Your task to perform on an android device: What's the weather going to be this weekend? Image 0: 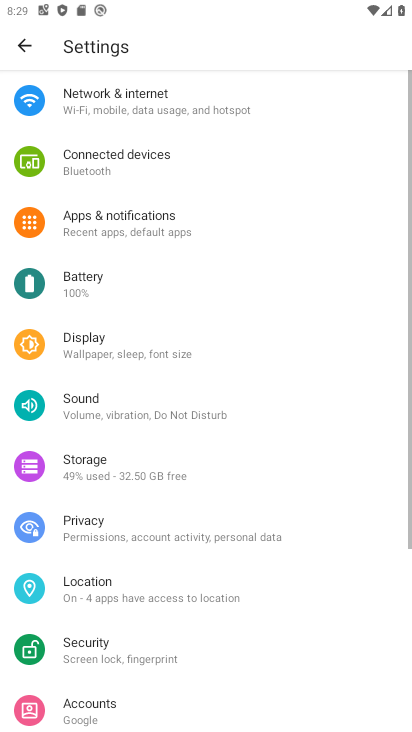
Step 0: press home button
Your task to perform on an android device: What's the weather going to be this weekend? Image 1: 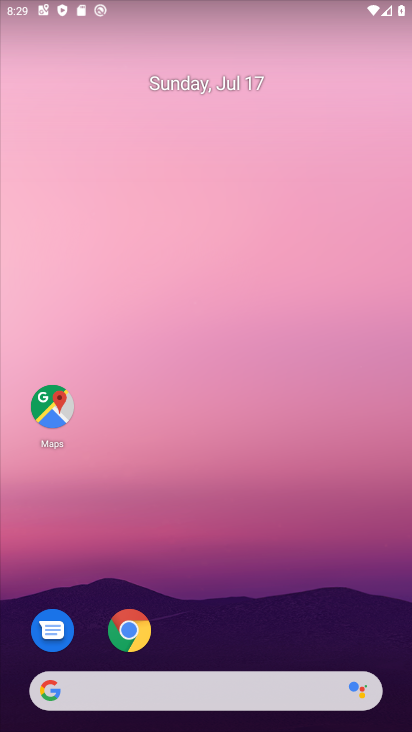
Step 1: click (187, 693)
Your task to perform on an android device: What's the weather going to be this weekend? Image 2: 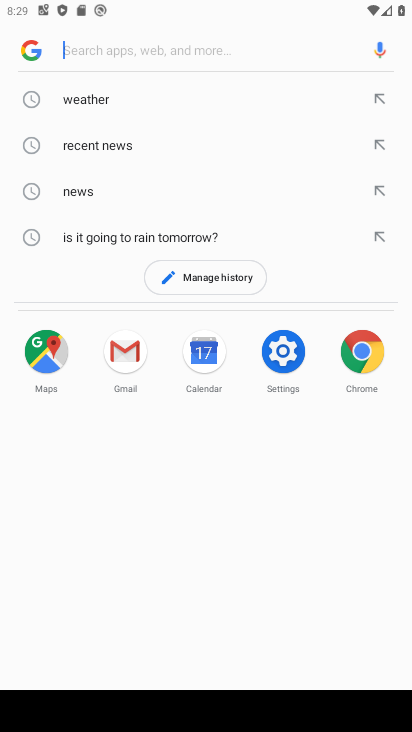
Step 2: click (92, 95)
Your task to perform on an android device: What's the weather going to be this weekend? Image 3: 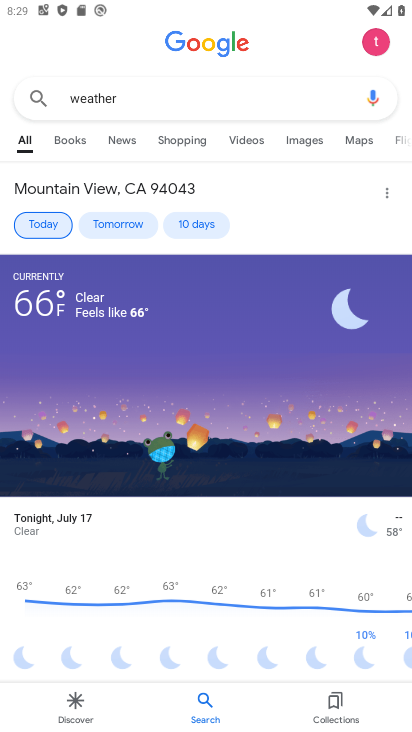
Step 3: click (206, 222)
Your task to perform on an android device: What's the weather going to be this weekend? Image 4: 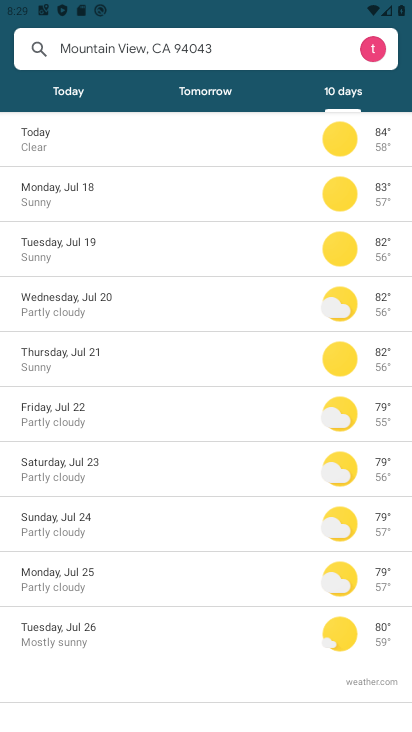
Step 4: click (157, 463)
Your task to perform on an android device: What's the weather going to be this weekend? Image 5: 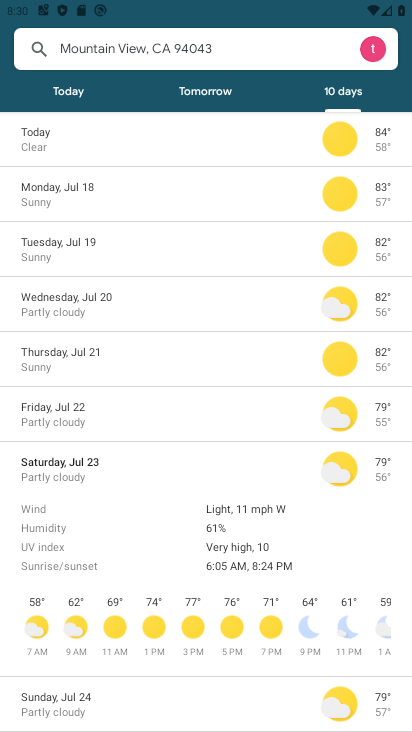
Step 5: task complete